Your task to perform on an android device: Open calendar and show me the third week of next month Image 0: 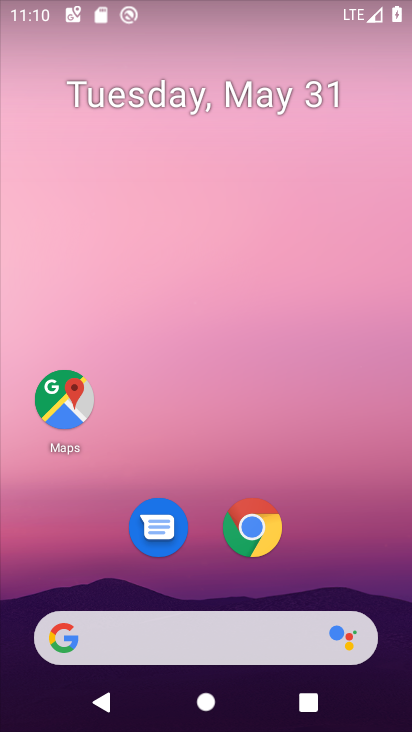
Step 0: drag from (367, 598) to (358, 18)
Your task to perform on an android device: Open calendar and show me the third week of next month Image 1: 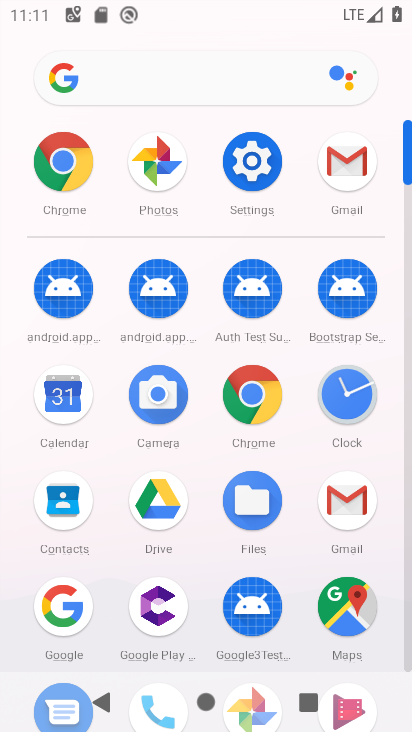
Step 1: click (57, 394)
Your task to perform on an android device: Open calendar and show me the third week of next month Image 2: 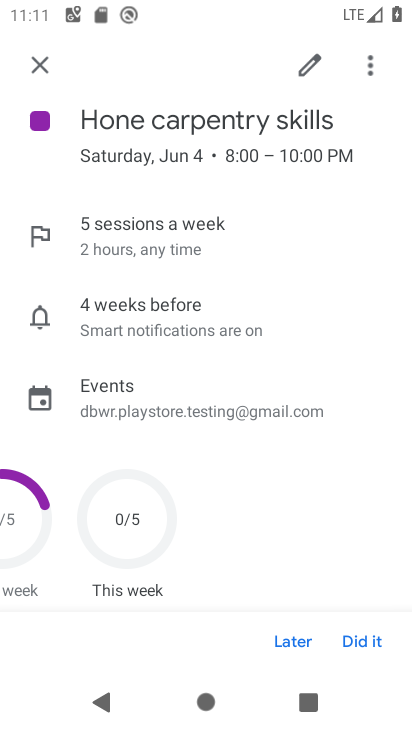
Step 2: click (41, 67)
Your task to perform on an android device: Open calendar and show me the third week of next month Image 3: 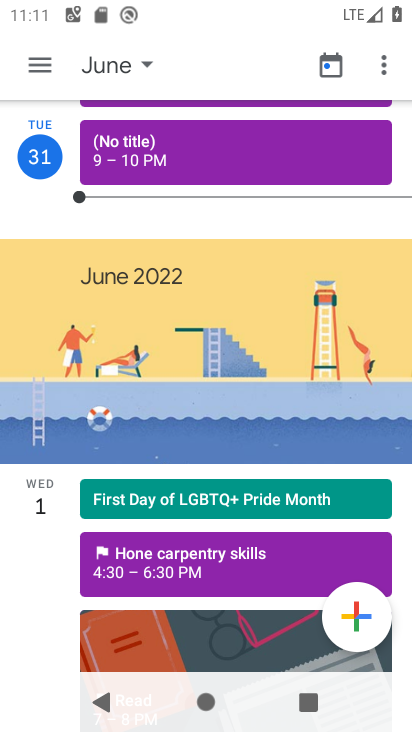
Step 3: click (42, 69)
Your task to perform on an android device: Open calendar and show me the third week of next month Image 4: 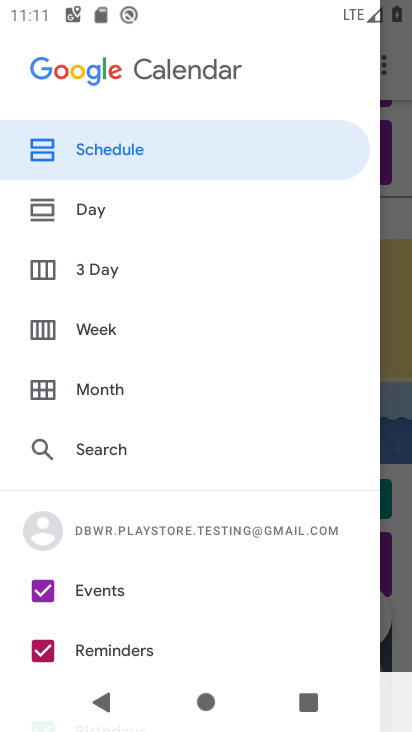
Step 4: click (77, 329)
Your task to perform on an android device: Open calendar and show me the third week of next month Image 5: 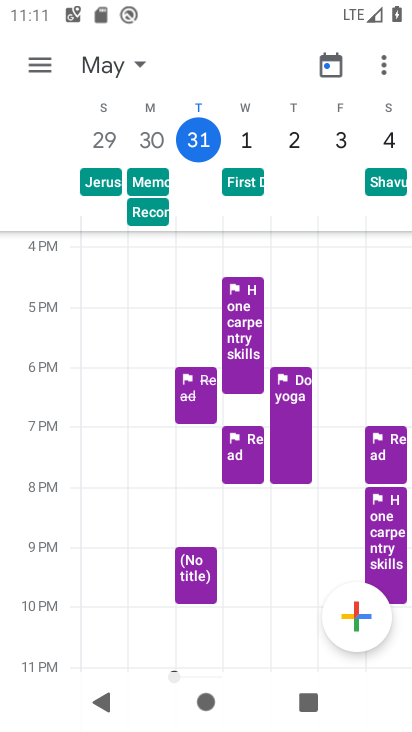
Step 5: task complete